Your task to perform on an android device: delete a single message in the gmail app Image 0: 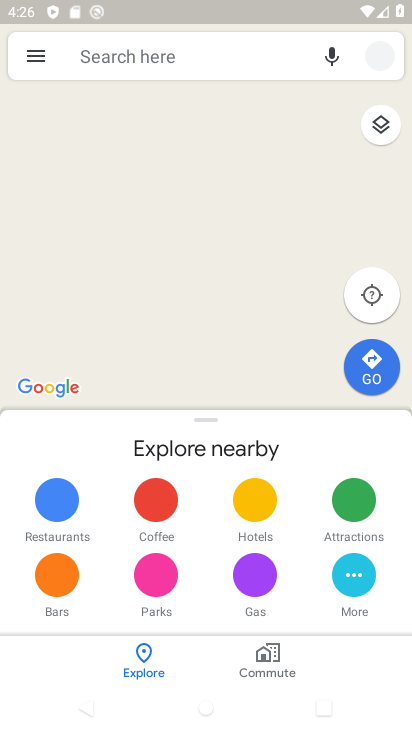
Step 0: press back button
Your task to perform on an android device: delete a single message in the gmail app Image 1: 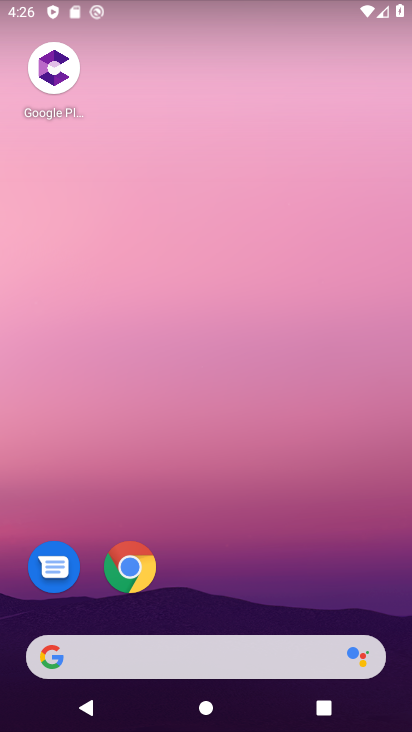
Step 1: drag from (217, 588) to (287, 64)
Your task to perform on an android device: delete a single message in the gmail app Image 2: 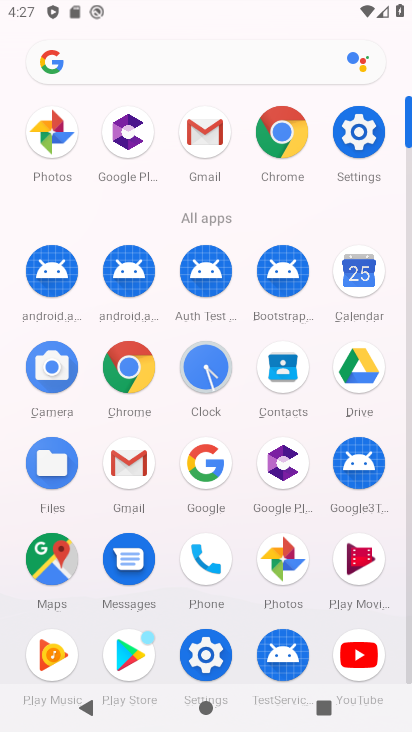
Step 2: click (217, 143)
Your task to perform on an android device: delete a single message in the gmail app Image 3: 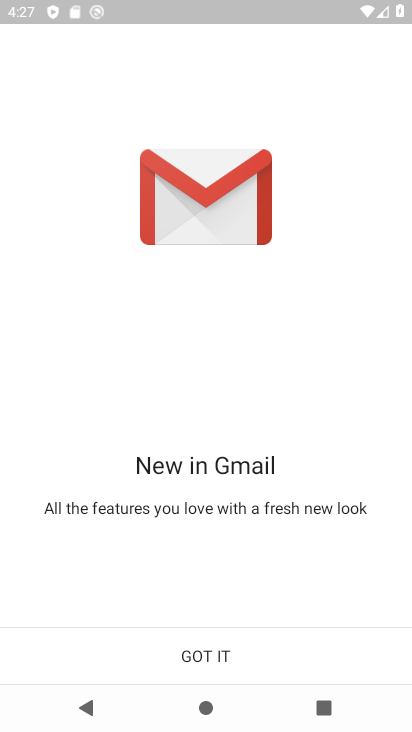
Step 3: click (182, 670)
Your task to perform on an android device: delete a single message in the gmail app Image 4: 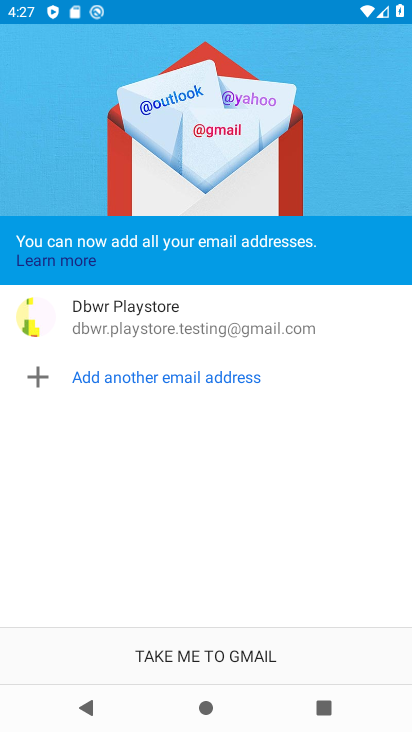
Step 4: click (216, 659)
Your task to perform on an android device: delete a single message in the gmail app Image 5: 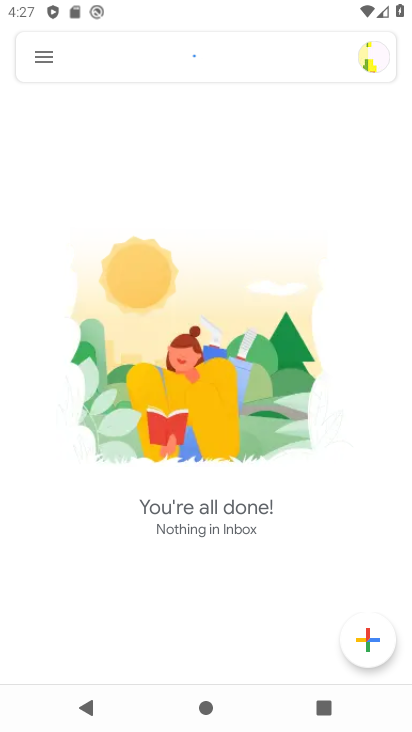
Step 5: click (47, 51)
Your task to perform on an android device: delete a single message in the gmail app Image 6: 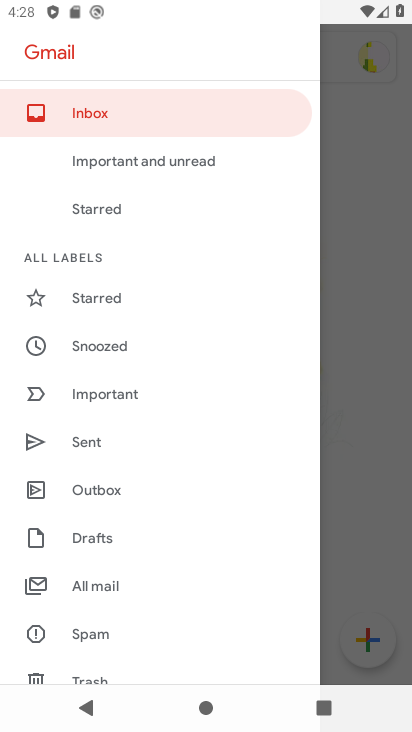
Step 6: click (94, 585)
Your task to perform on an android device: delete a single message in the gmail app Image 7: 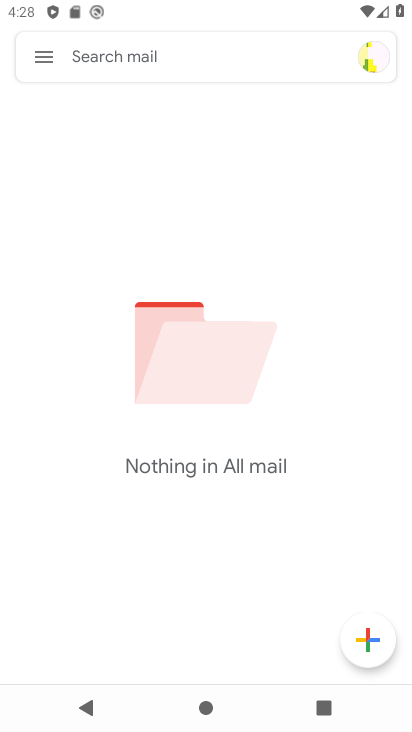
Step 7: task complete